Your task to perform on an android device: all mails in gmail Image 0: 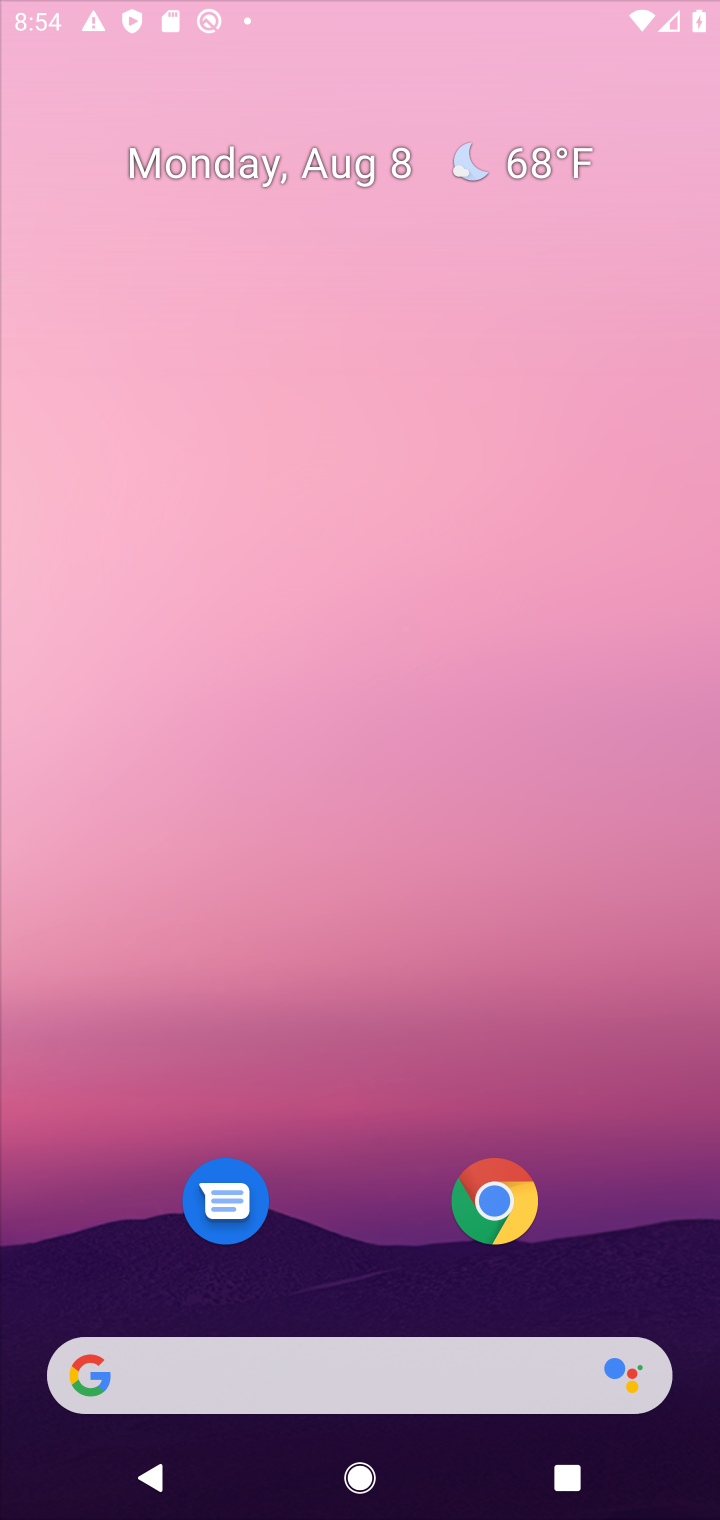
Step 0: press home button
Your task to perform on an android device: all mails in gmail Image 1: 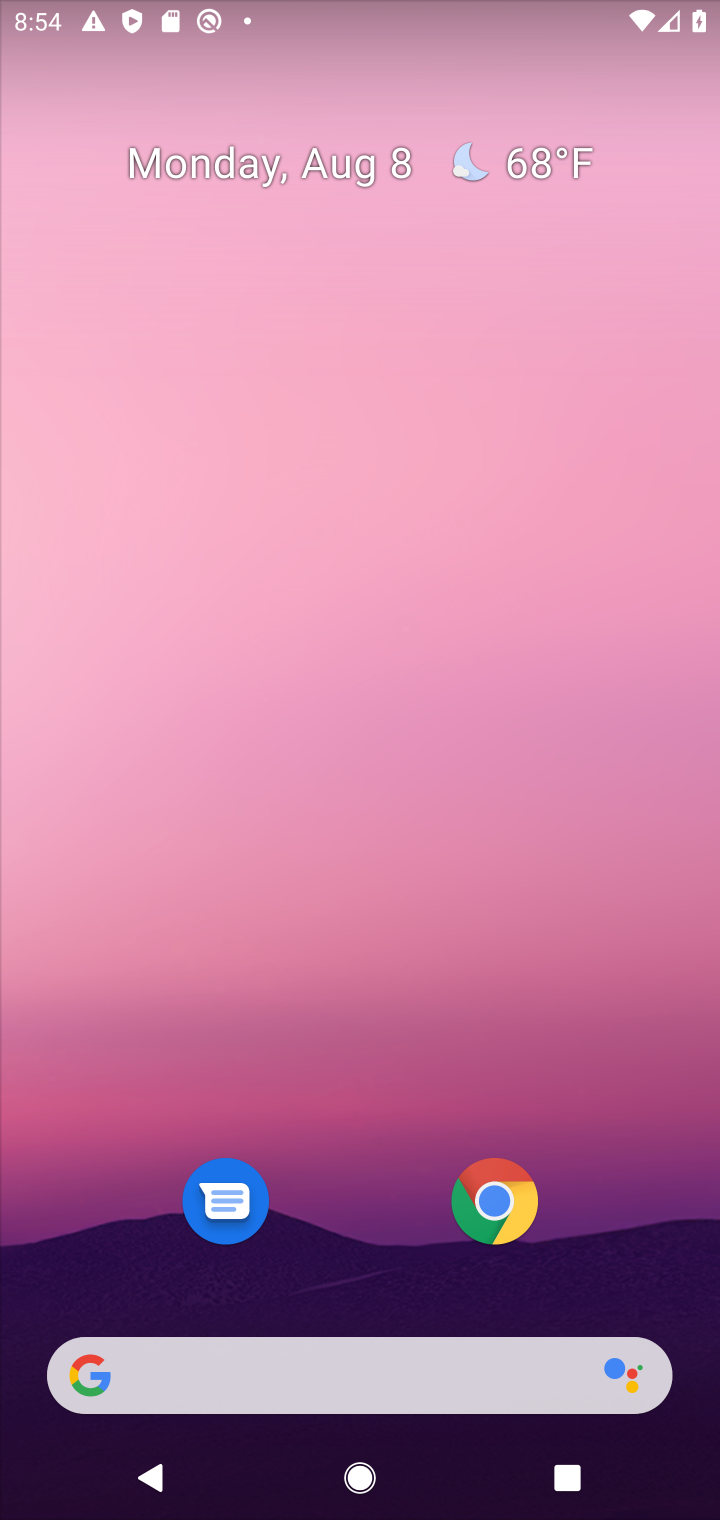
Step 1: drag from (623, 1227) to (619, 286)
Your task to perform on an android device: all mails in gmail Image 2: 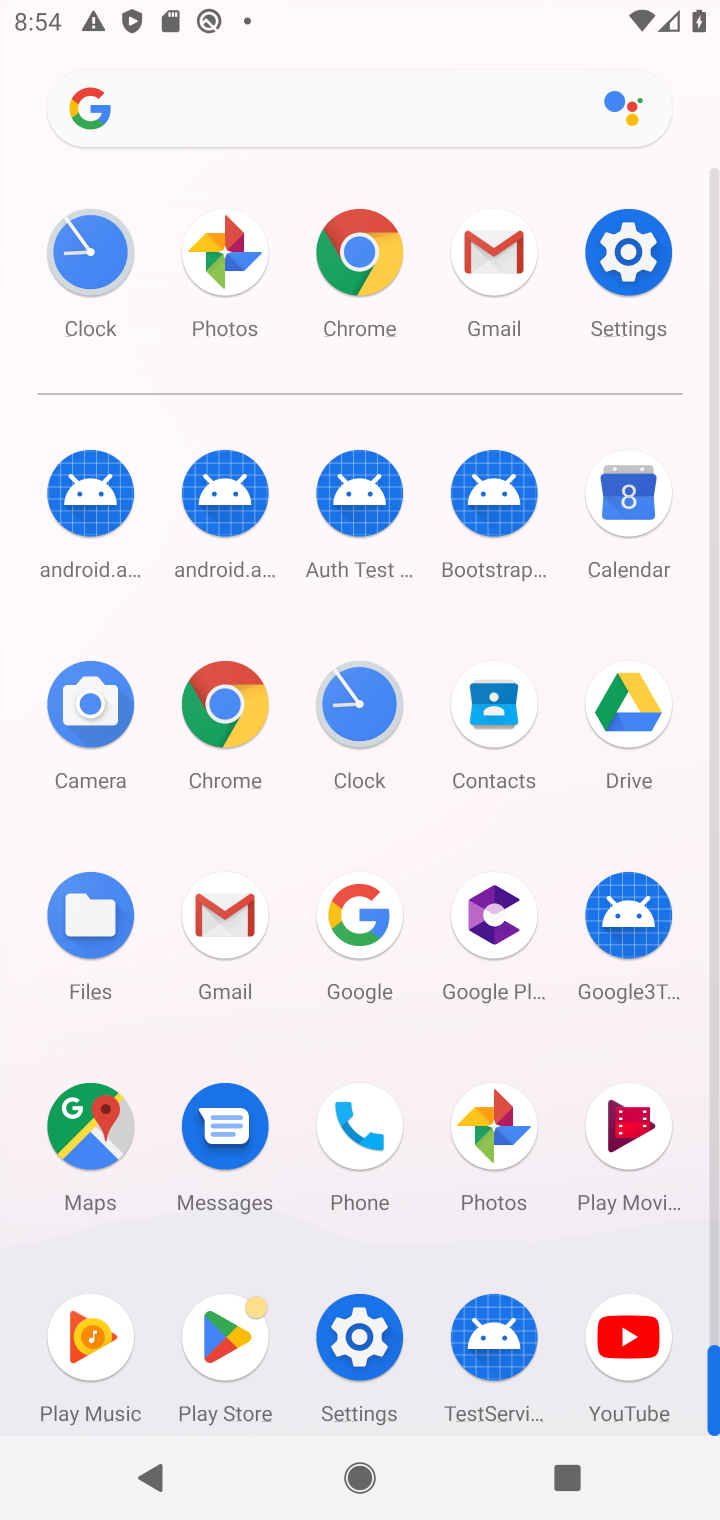
Step 2: click (493, 247)
Your task to perform on an android device: all mails in gmail Image 3: 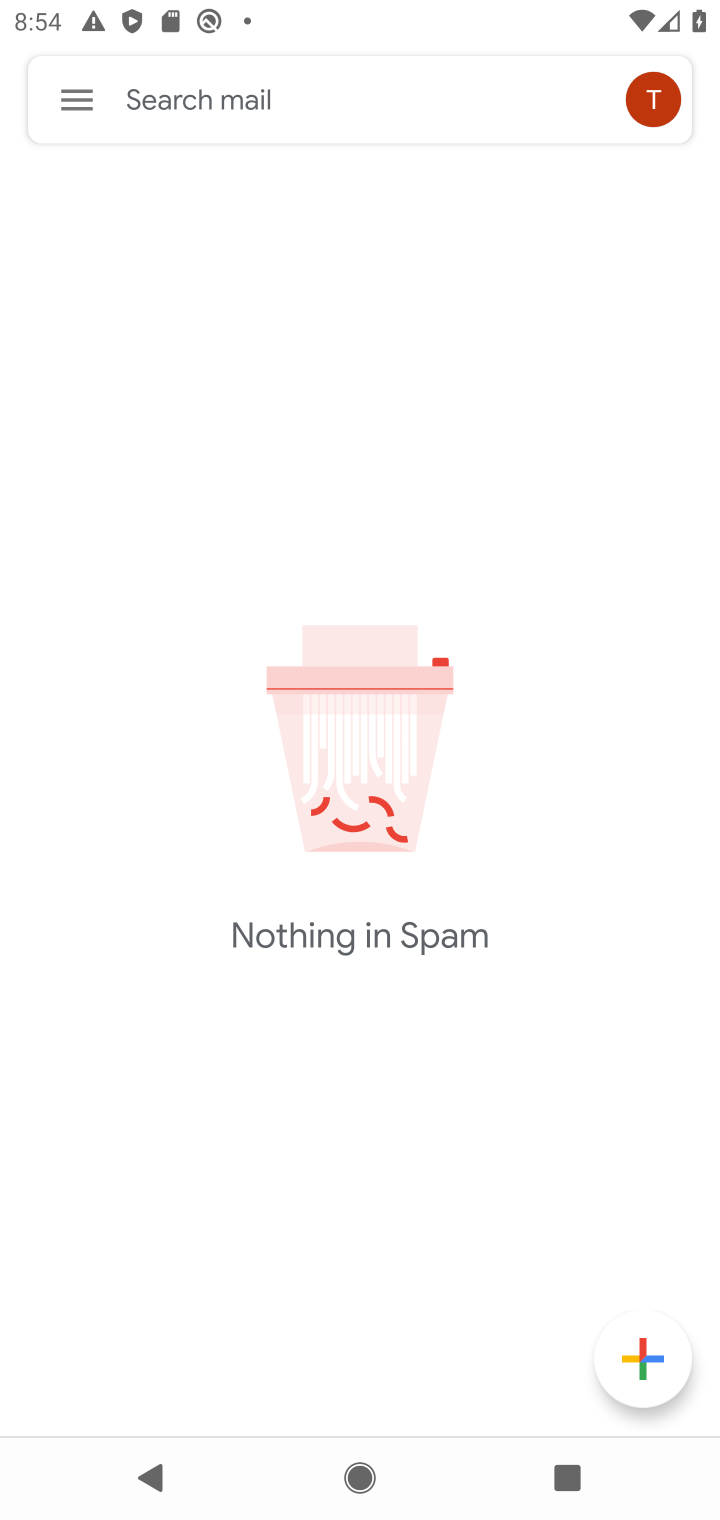
Step 3: click (81, 95)
Your task to perform on an android device: all mails in gmail Image 4: 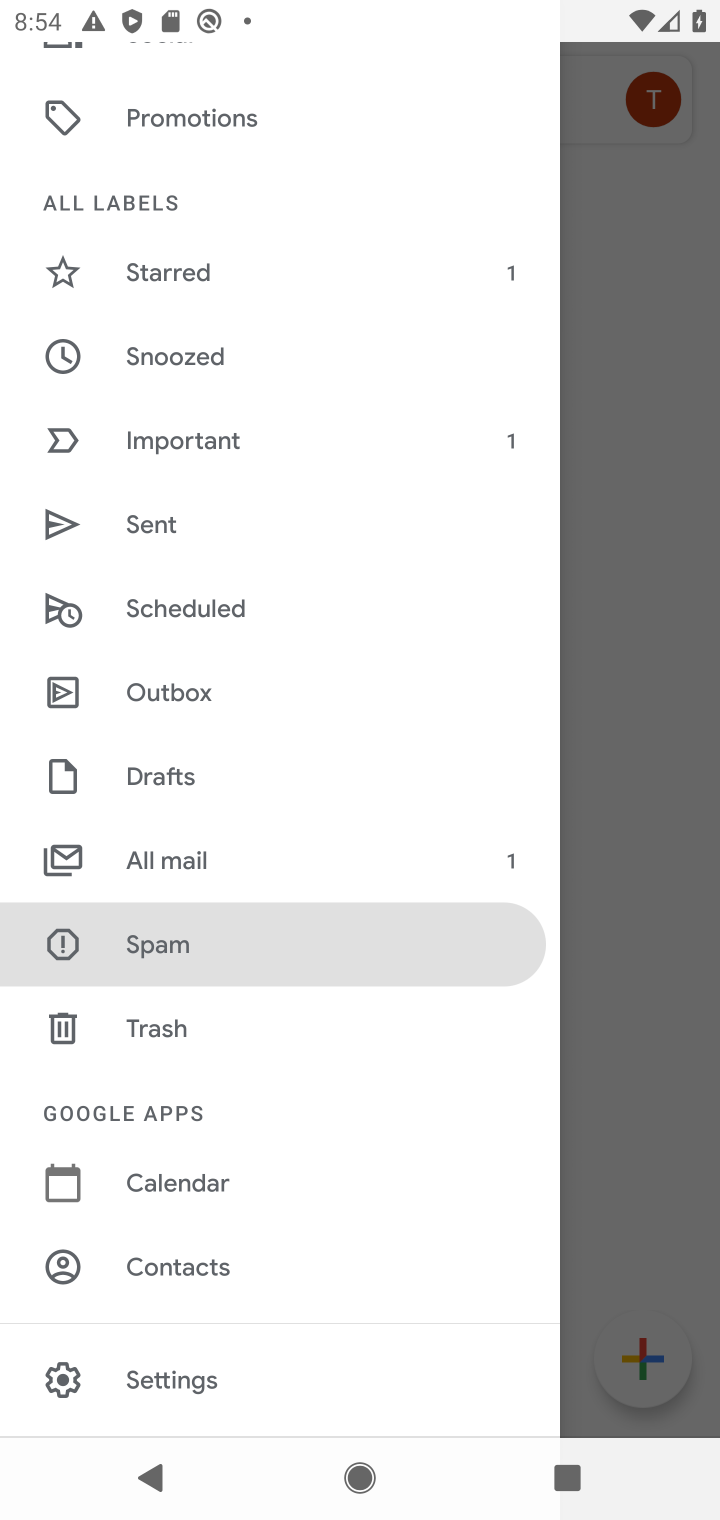
Step 4: click (254, 852)
Your task to perform on an android device: all mails in gmail Image 5: 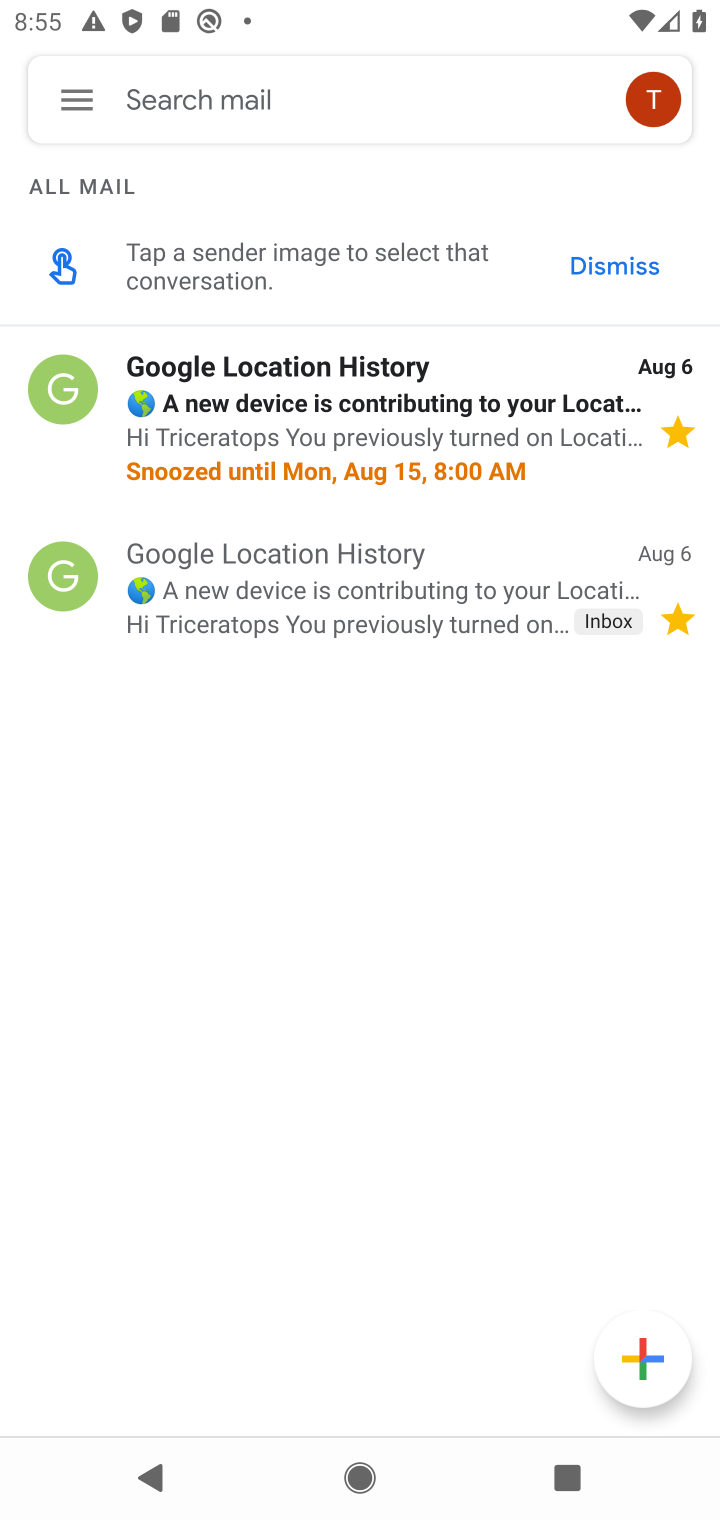
Step 5: task complete